Your task to perform on an android device: Open settings Image 0: 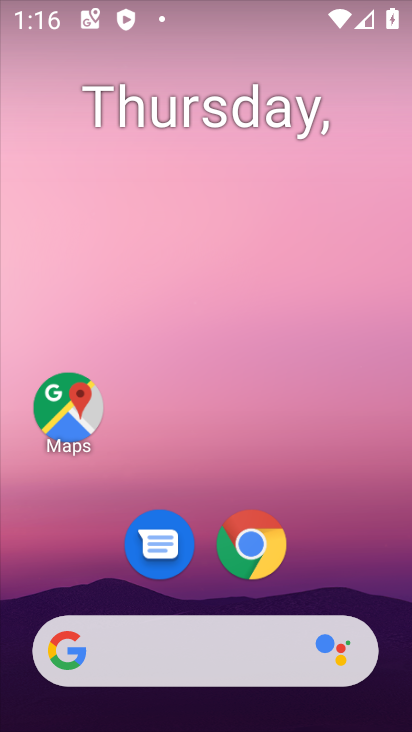
Step 0: drag from (201, 723) to (246, 11)
Your task to perform on an android device: Open settings Image 1: 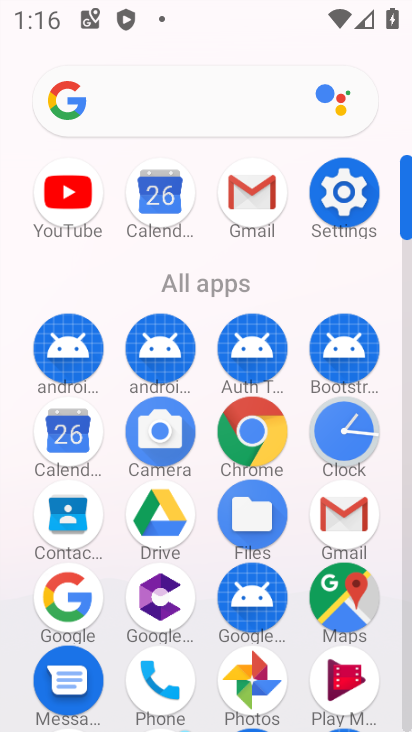
Step 1: click (339, 199)
Your task to perform on an android device: Open settings Image 2: 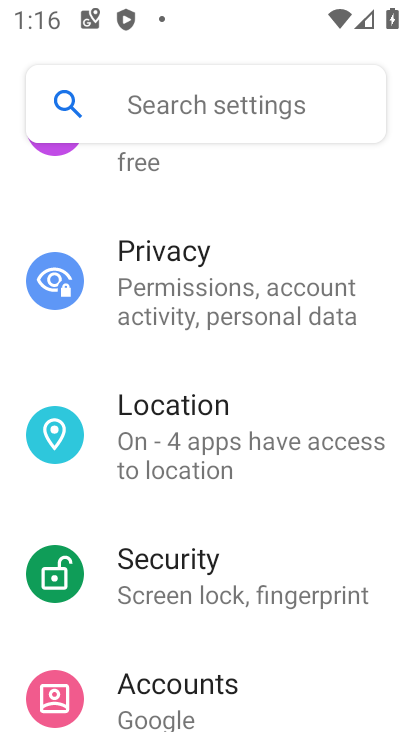
Step 2: task complete